Your task to perform on an android device: change the clock display to analog Image 0: 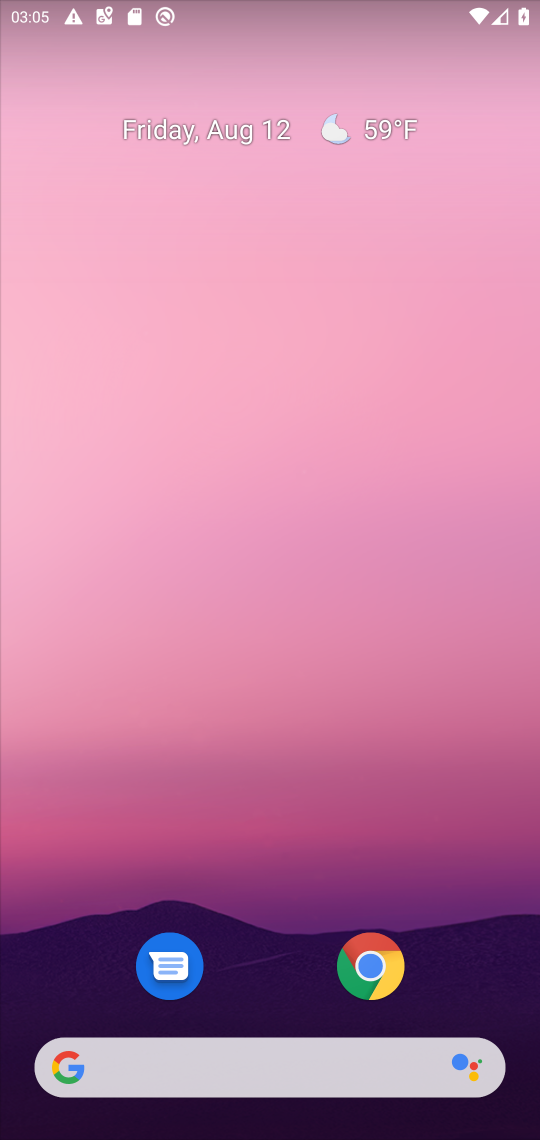
Step 0: drag from (344, 408) to (399, 4)
Your task to perform on an android device: change the clock display to analog Image 1: 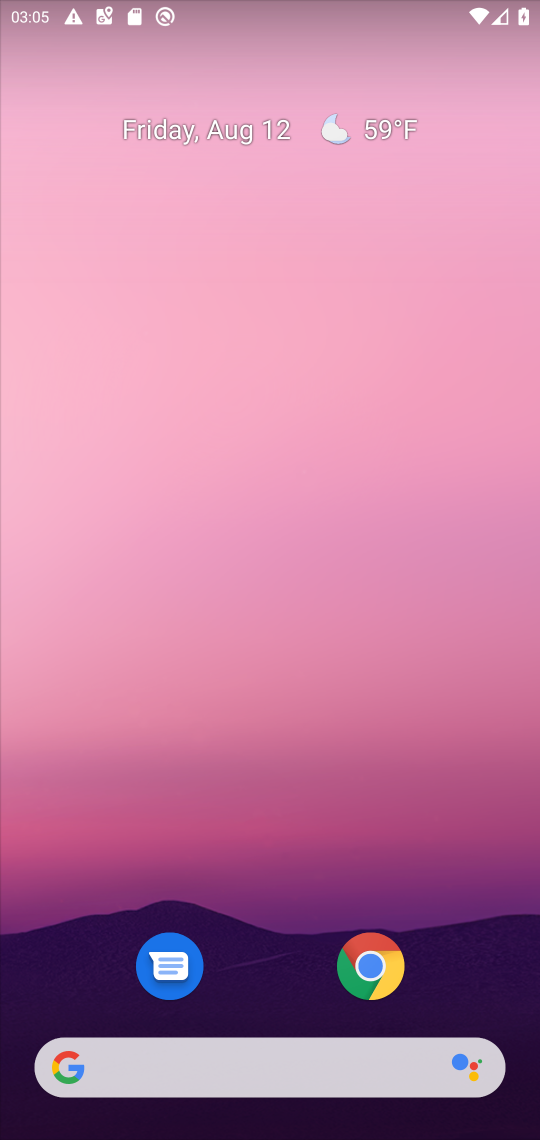
Step 1: drag from (283, 859) to (363, 10)
Your task to perform on an android device: change the clock display to analog Image 2: 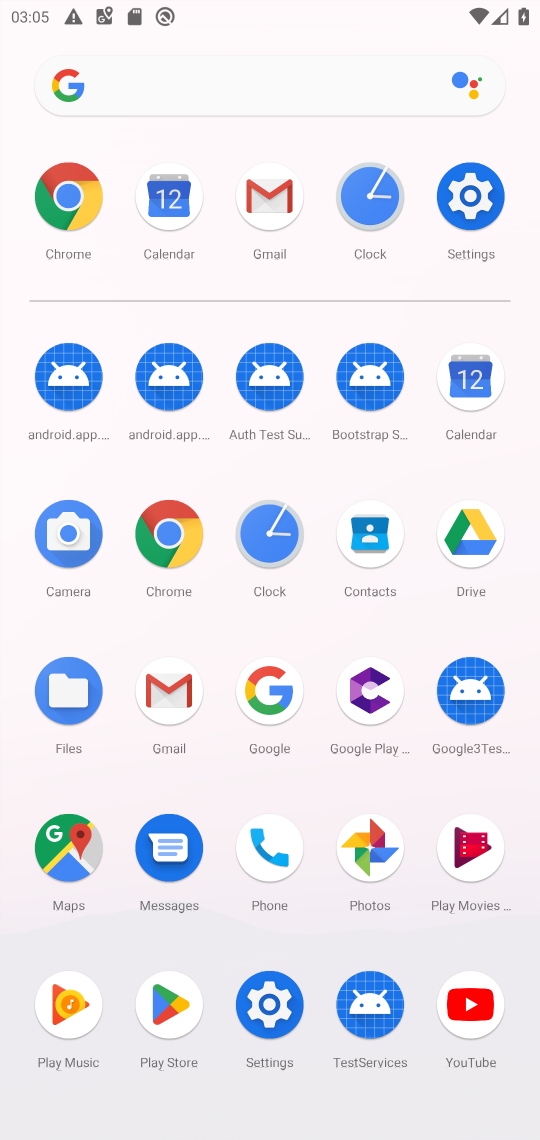
Step 2: click (262, 537)
Your task to perform on an android device: change the clock display to analog Image 3: 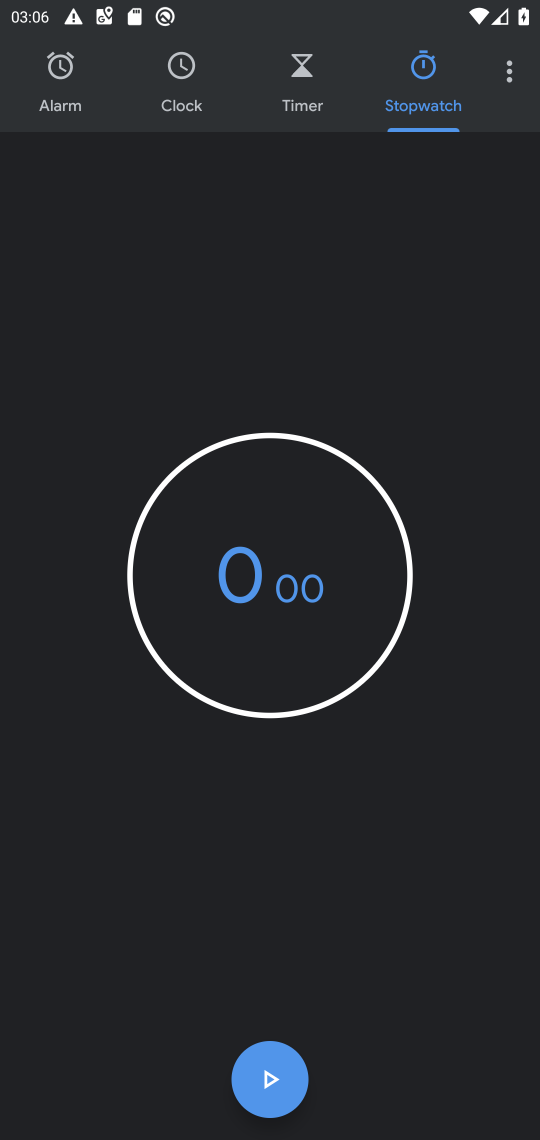
Step 3: click (508, 66)
Your task to perform on an android device: change the clock display to analog Image 4: 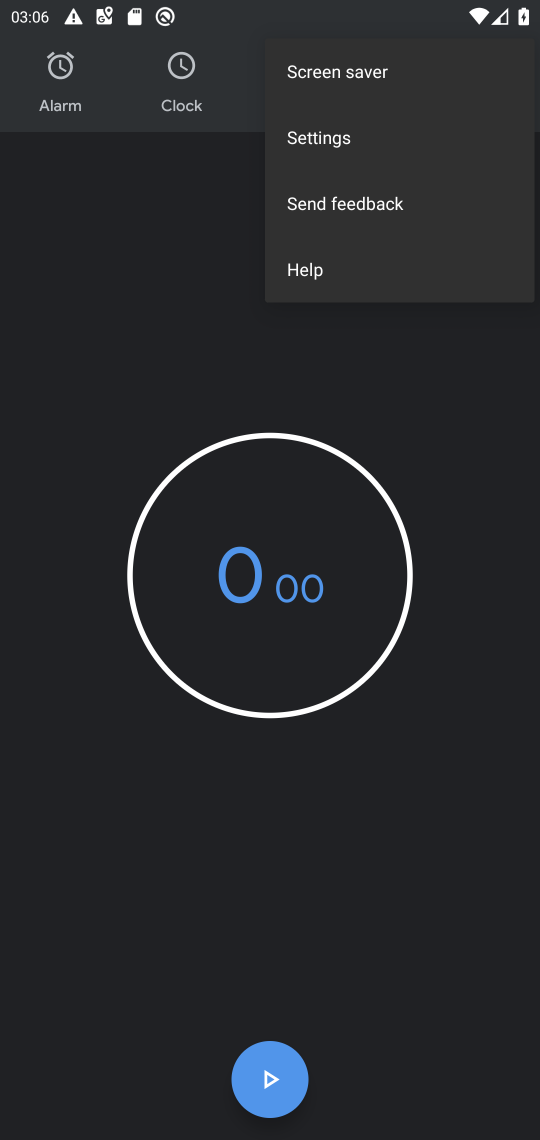
Step 4: click (327, 148)
Your task to perform on an android device: change the clock display to analog Image 5: 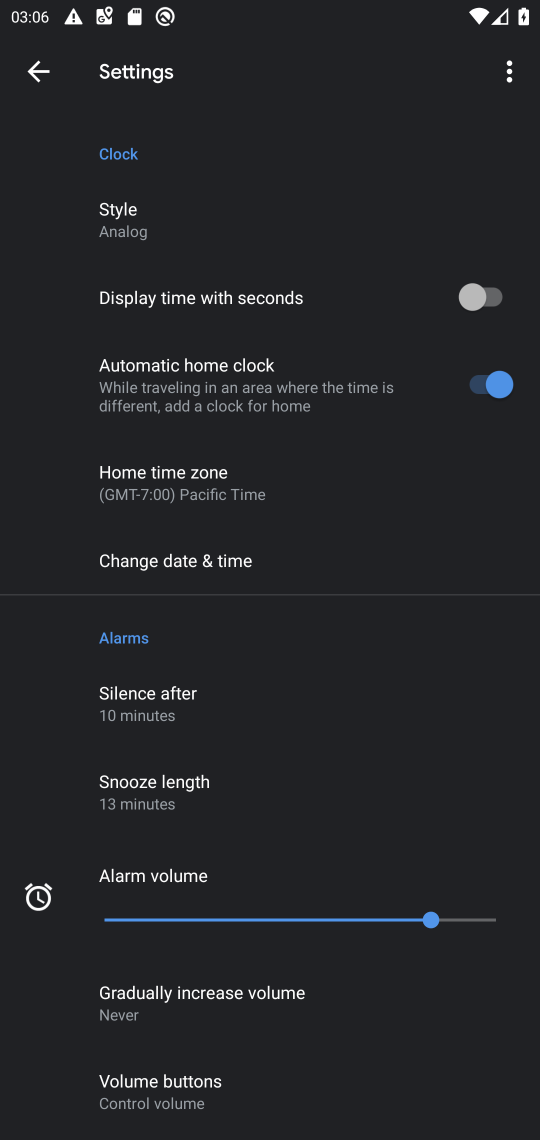
Step 5: click (187, 225)
Your task to perform on an android device: change the clock display to analog Image 6: 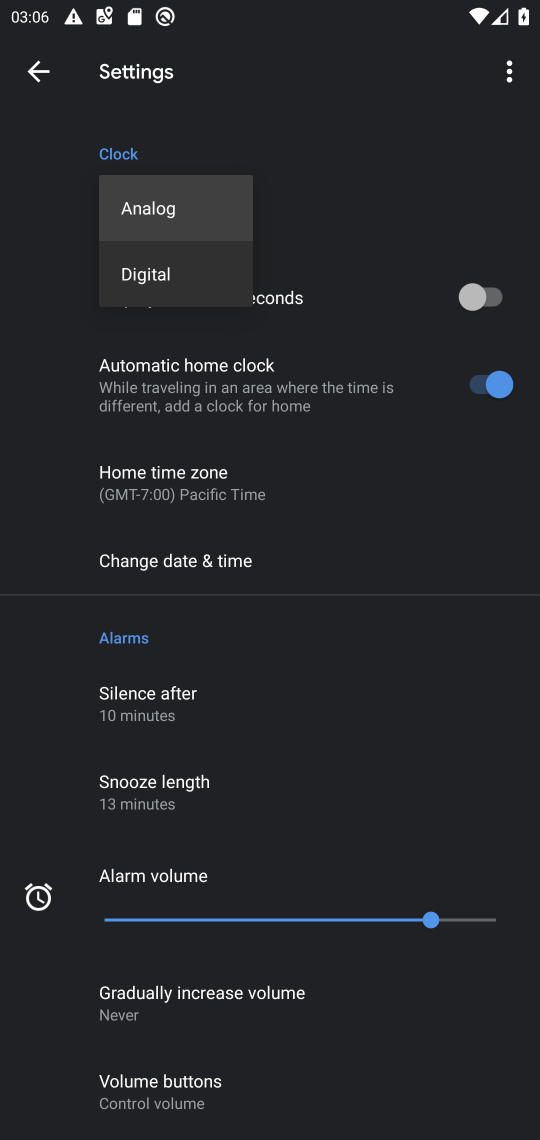
Step 6: task complete